Your task to perform on an android device: turn off airplane mode Image 0: 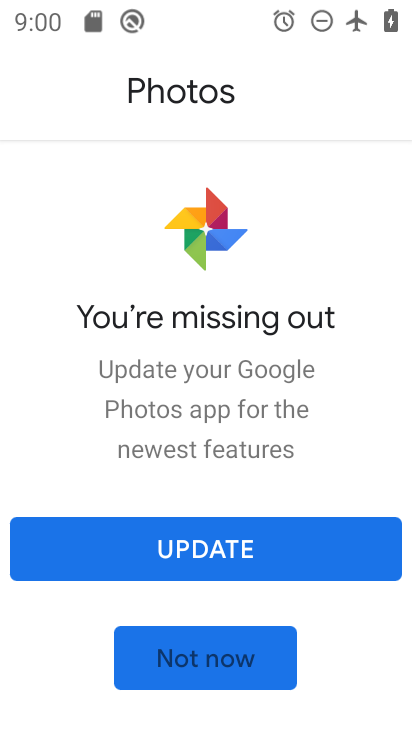
Step 0: press home button
Your task to perform on an android device: turn off airplane mode Image 1: 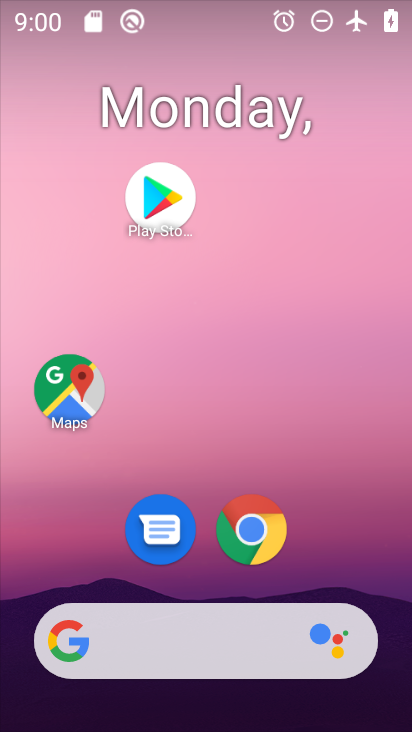
Step 1: drag from (260, 412) to (250, 157)
Your task to perform on an android device: turn off airplane mode Image 2: 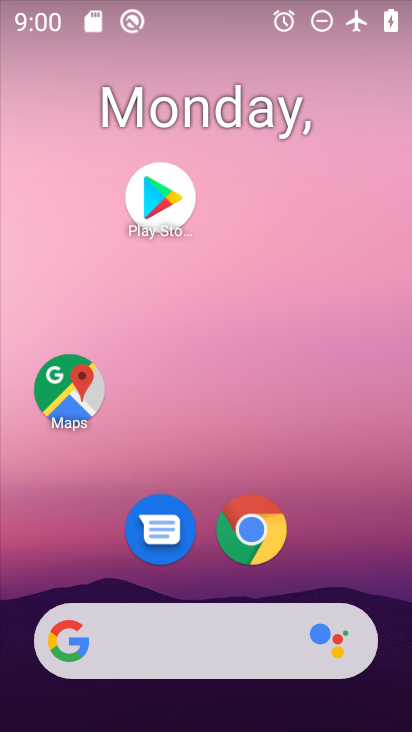
Step 2: drag from (315, 516) to (177, 33)
Your task to perform on an android device: turn off airplane mode Image 3: 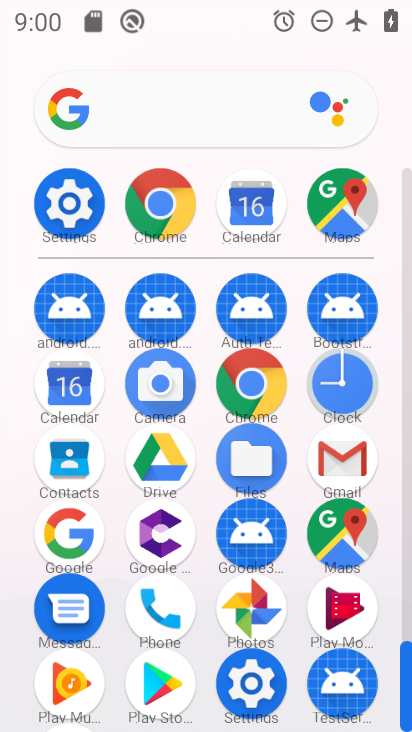
Step 3: click (67, 204)
Your task to perform on an android device: turn off airplane mode Image 4: 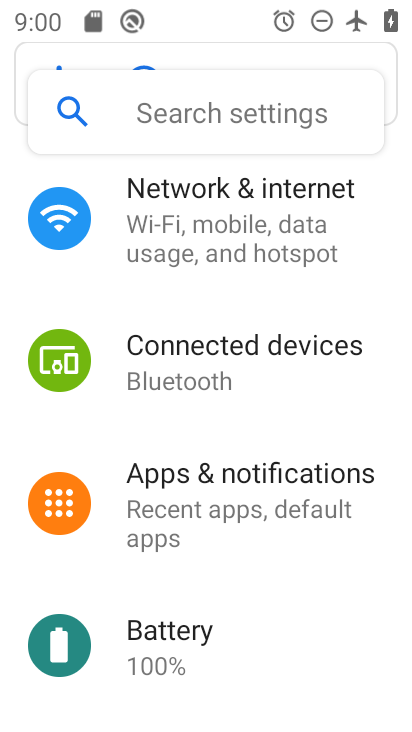
Step 4: click (204, 200)
Your task to perform on an android device: turn off airplane mode Image 5: 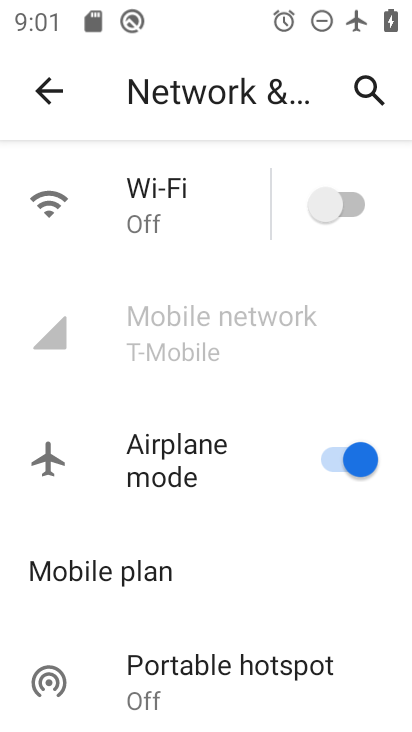
Step 5: click (343, 467)
Your task to perform on an android device: turn off airplane mode Image 6: 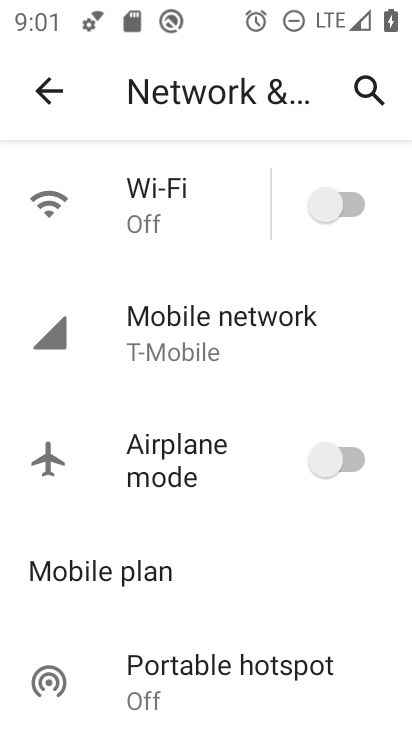
Step 6: task complete